Your task to perform on an android device: Open calendar and show me the fourth week of next month Image 0: 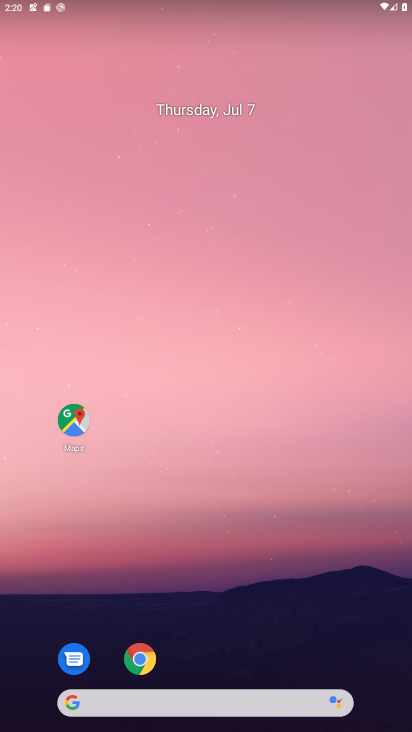
Step 0: drag from (184, 651) to (240, 59)
Your task to perform on an android device: Open calendar and show me the fourth week of next month Image 1: 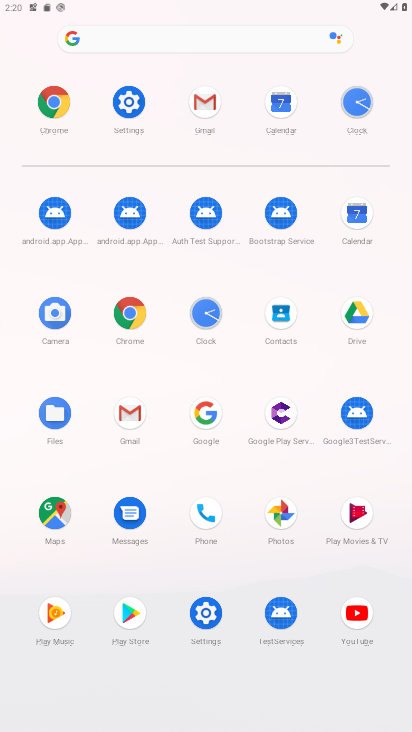
Step 1: click (354, 205)
Your task to perform on an android device: Open calendar and show me the fourth week of next month Image 2: 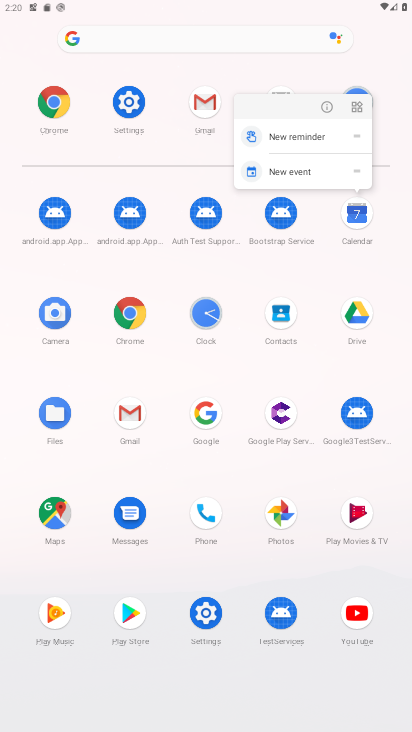
Step 2: click (322, 101)
Your task to perform on an android device: Open calendar and show me the fourth week of next month Image 3: 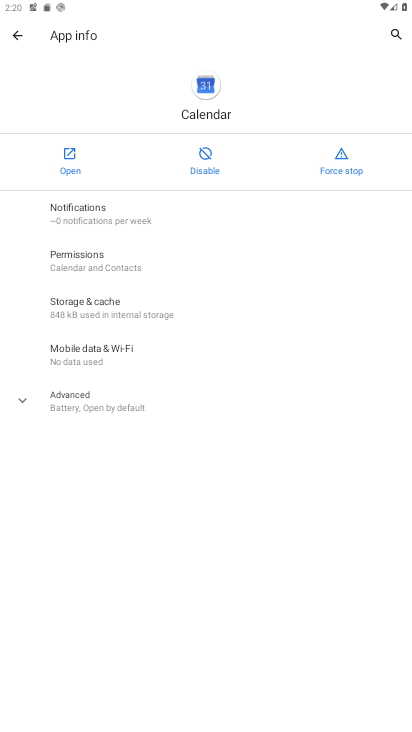
Step 3: click (76, 162)
Your task to perform on an android device: Open calendar and show me the fourth week of next month Image 4: 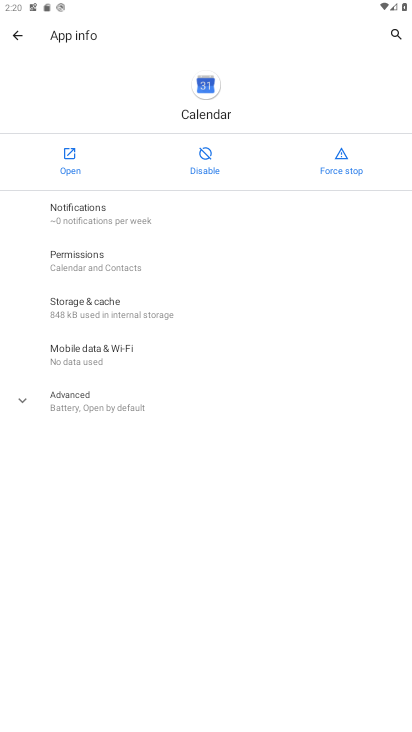
Step 4: click (74, 163)
Your task to perform on an android device: Open calendar and show me the fourth week of next month Image 5: 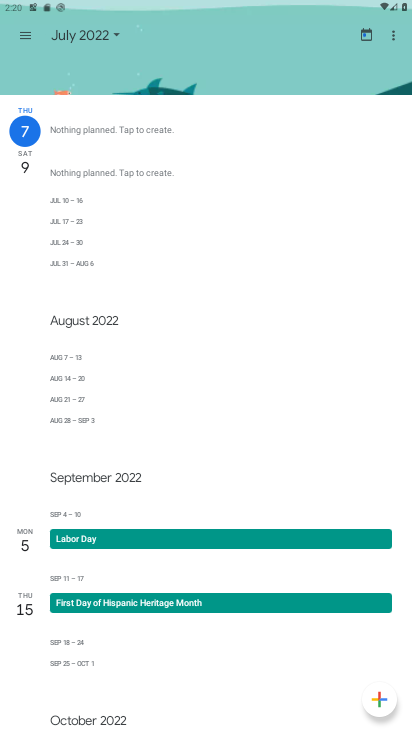
Step 5: drag from (205, 421) to (246, 191)
Your task to perform on an android device: Open calendar and show me the fourth week of next month Image 6: 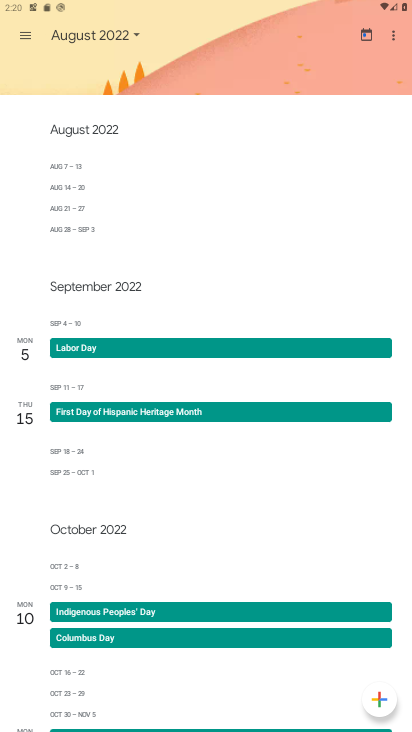
Step 6: drag from (241, 168) to (328, 573)
Your task to perform on an android device: Open calendar and show me the fourth week of next month Image 7: 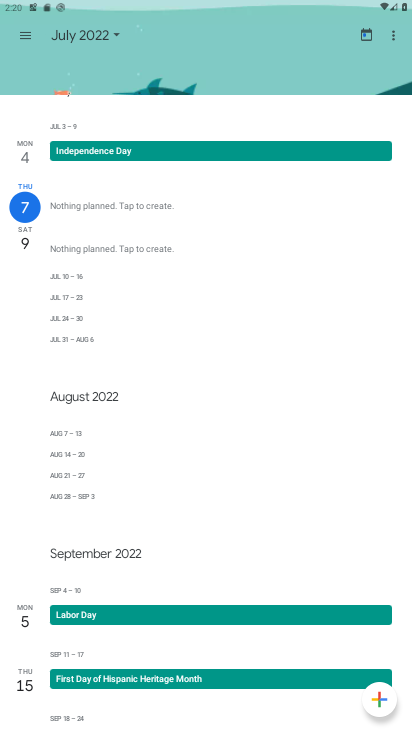
Step 7: click (100, 40)
Your task to perform on an android device: Open calendar and show me the fourth week of next month Image 8: 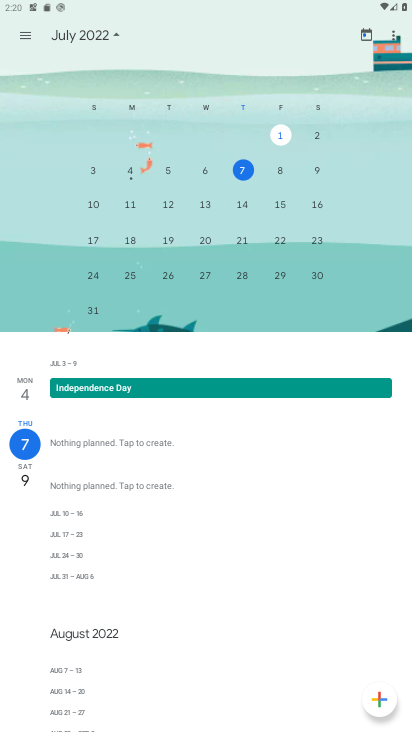
Step 8: drag from (334, 222) to (17, 238)
Your task to perform on an android device: Open calendar and show me the fourth week of next month Image 9: 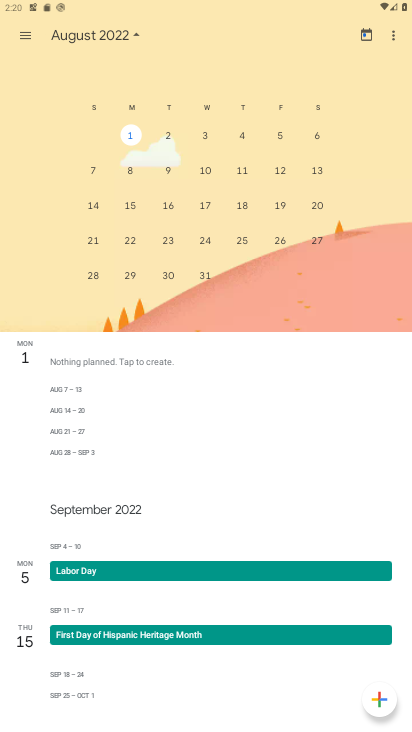
Step 9: click (236, 241)
Your task to perform on an android device: Open calendar and show me the fourth week of next month Image 10: 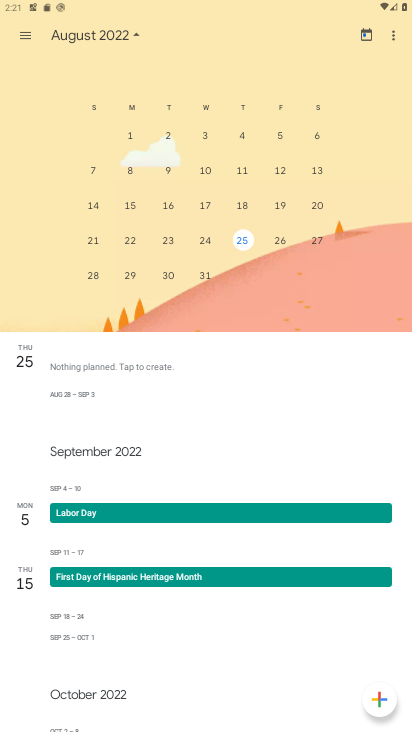
Step 10: task complete